Your task to perform on an android device: open a new tab in the chrome app Image 0: 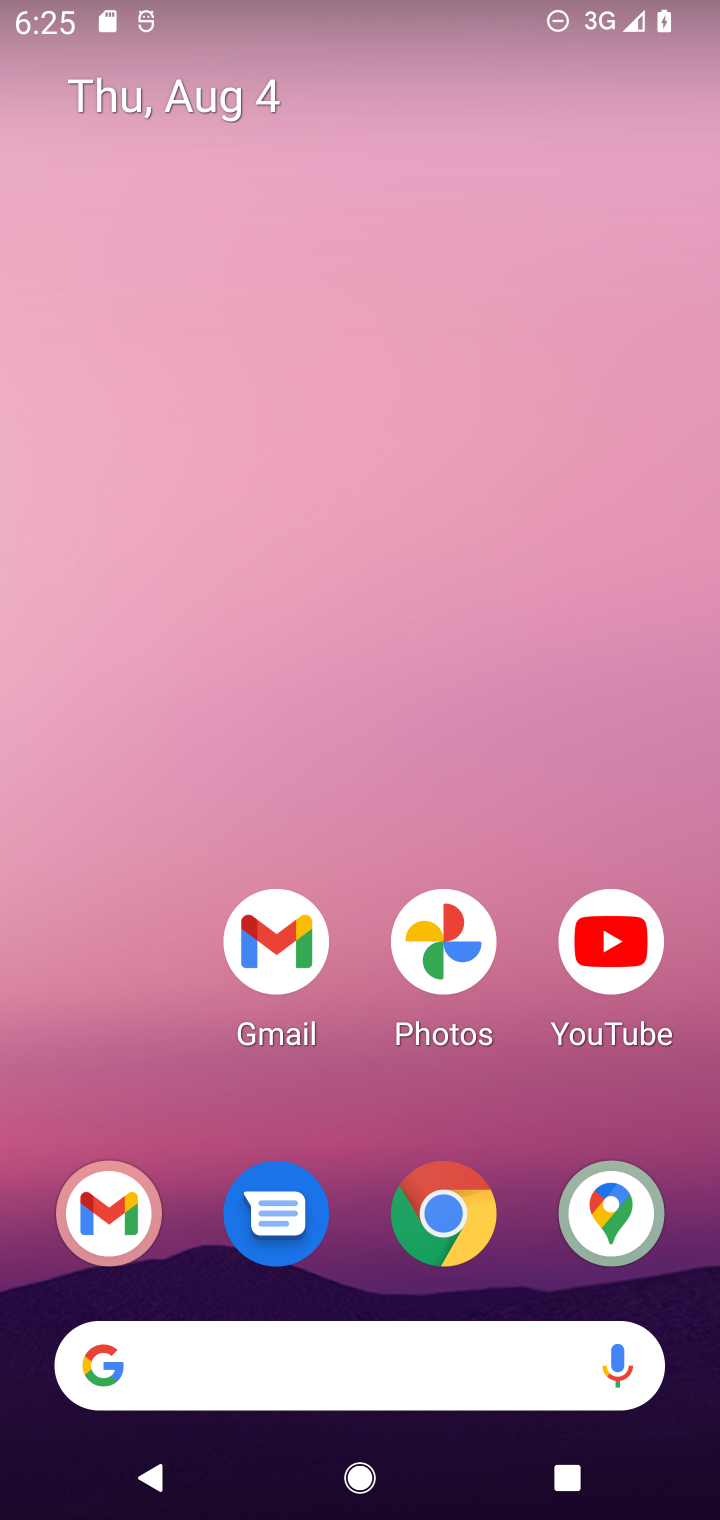
Step 0: press home button
Your task to perform on an android device: open a new tab in the chrome app Image 1: 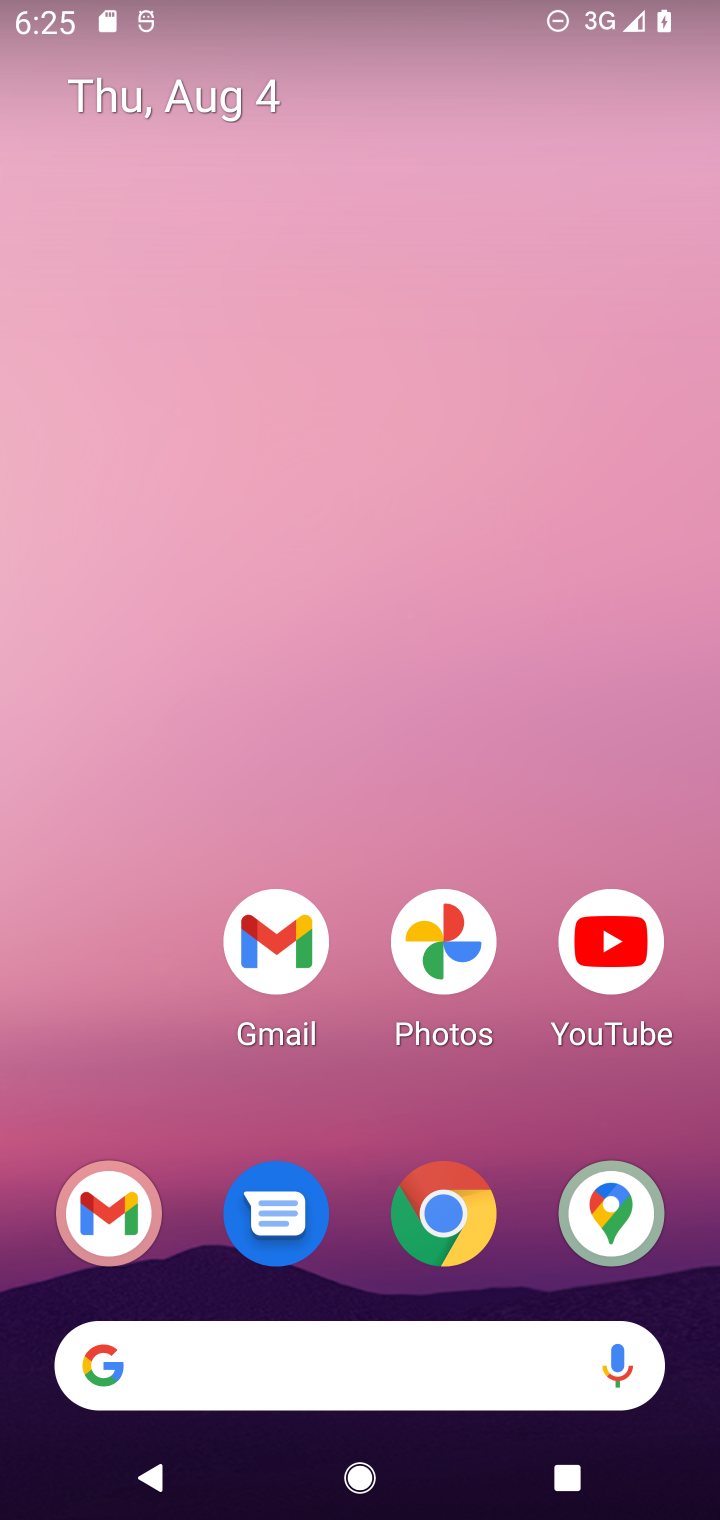
Step 1: drag from (181, 1105) to (123, 413)
Your task to perform on an android device: open a new tab in the chrome app Image 2: 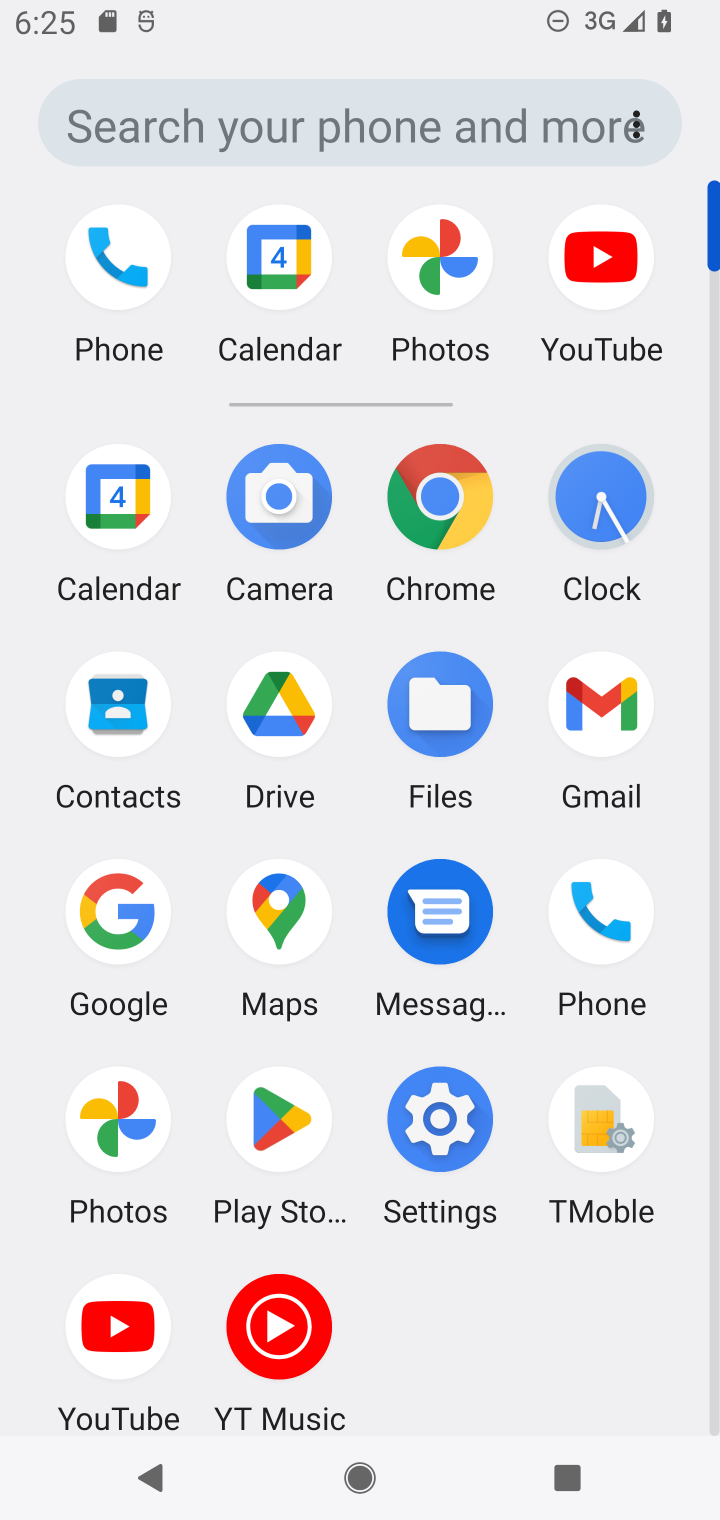
Step 2: click (458, 512)
Your task to perform on an android device: open a new tab in the chrome app Image 3: 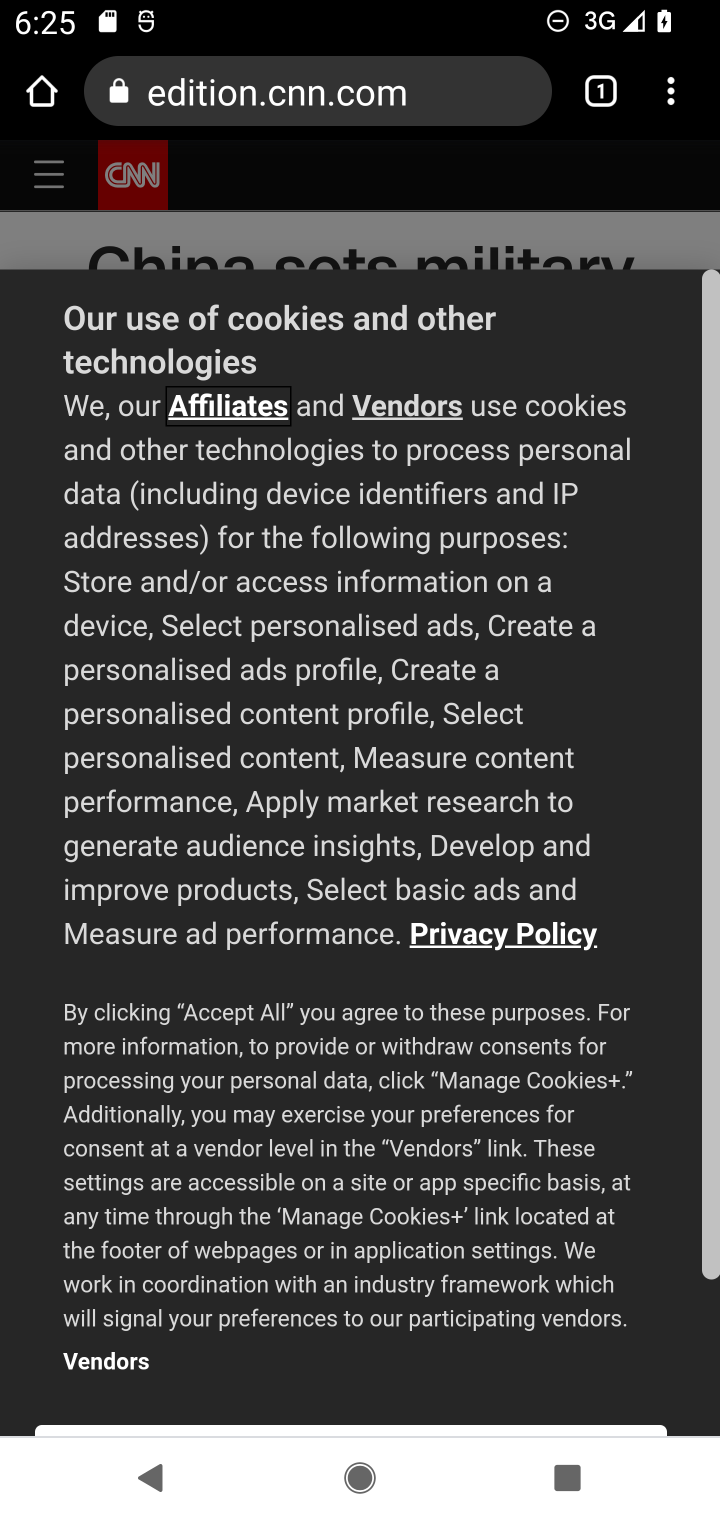
Step 3: click (670, 101)
Your task to perform on an android device: open a new tab in the chrome app Image 4: 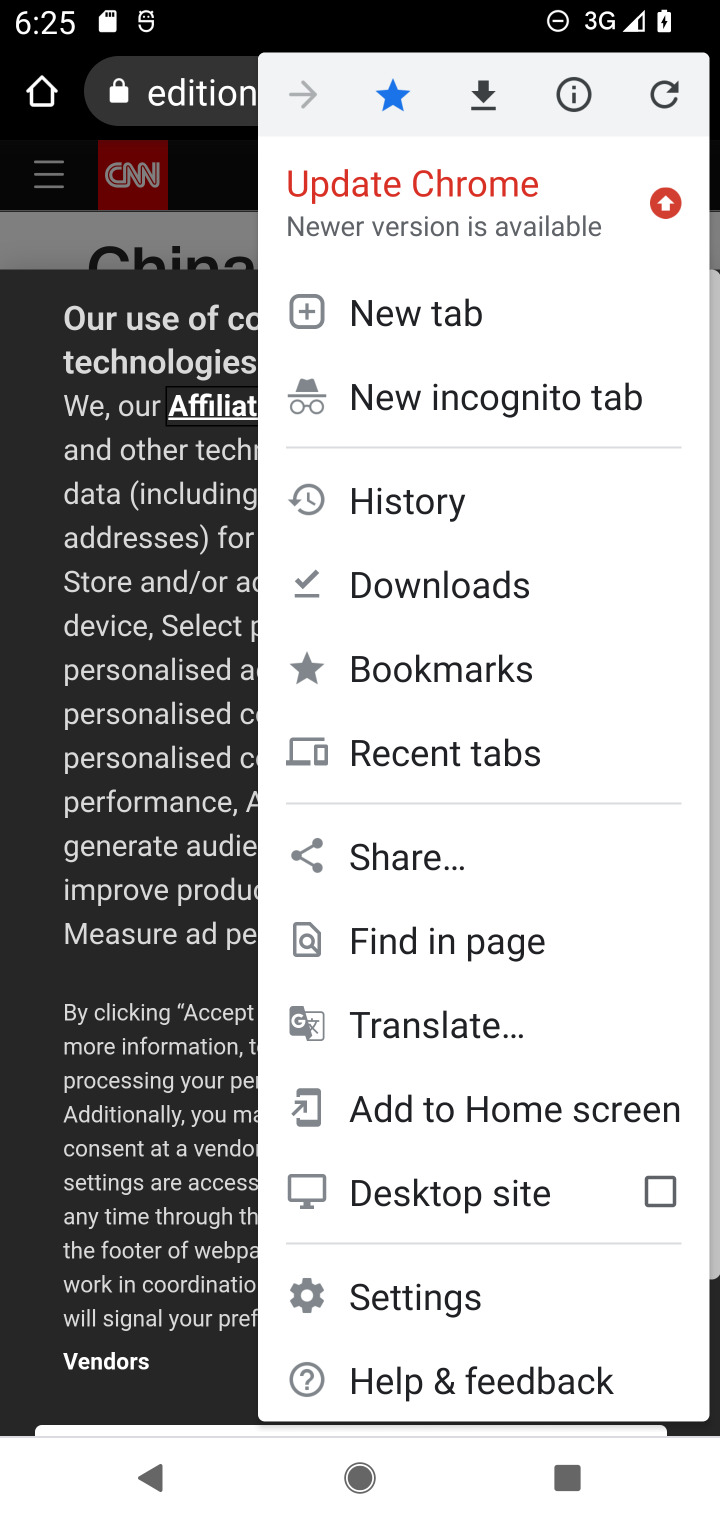
Step 4: drag from (617, 963) to (621, 632)
Your task to perform on an android device: open a new tab in the chrome app Image 5: 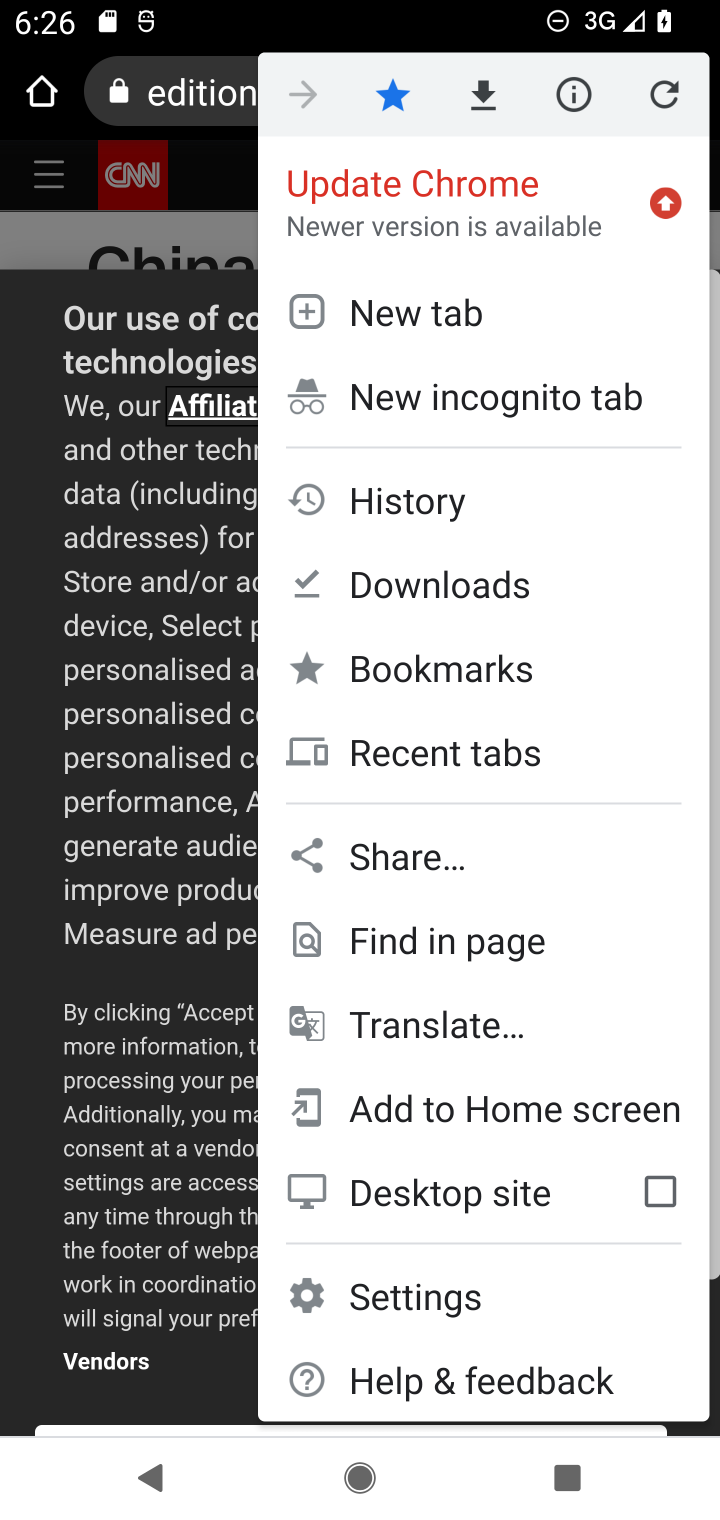
Step 5: click (458, 311)
Your task to perform on an android device: open a new tab in the chrome app Image 6: 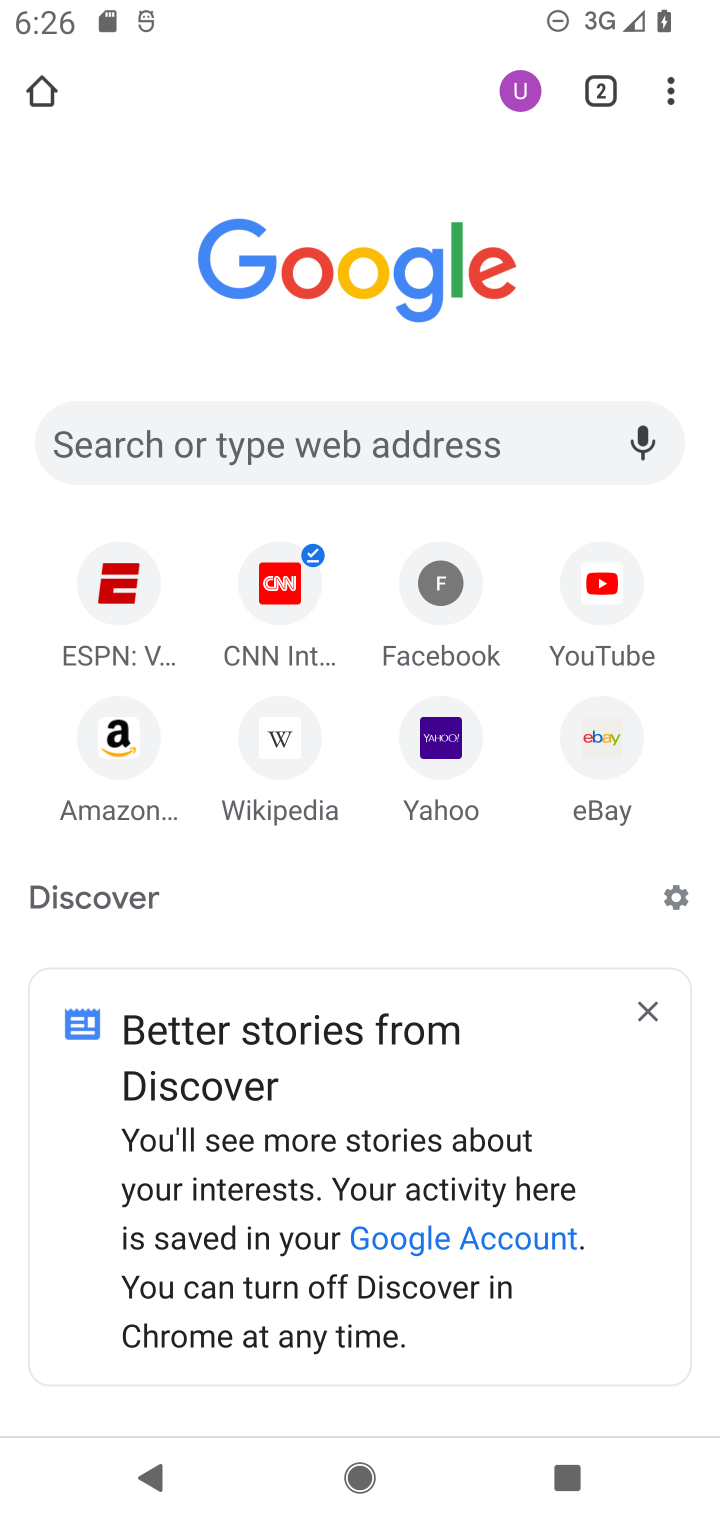
Step 6: task complete